Your task to perform on an android device: toggle improve location accuracy Image 0: 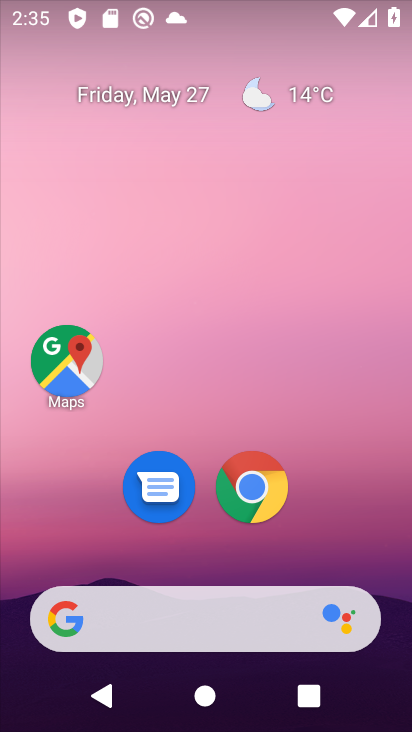
Step 0: drag from (277, 546) to (307, 82)
Your task to perform on an android device: toggle improve location accuracy Image 1: 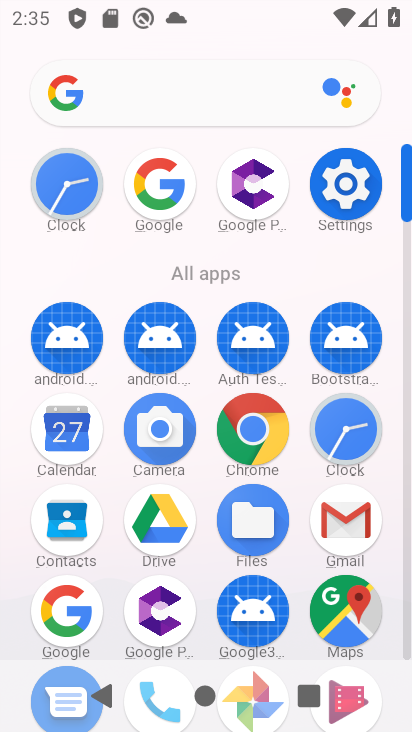
Step 1: click (350, 184)
Your task to perform on an android device: toggle improve location accuracy Image 2: 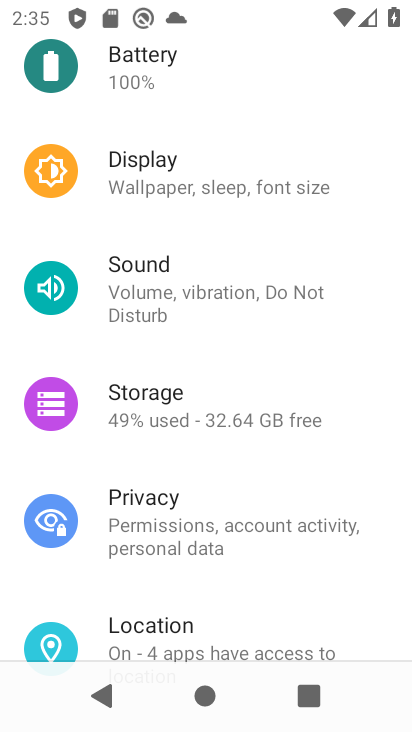
Step 2: drag from (256, 616) to (307, 267)
Your task to perform on an android device: toggle improve location accuracy Image 3: 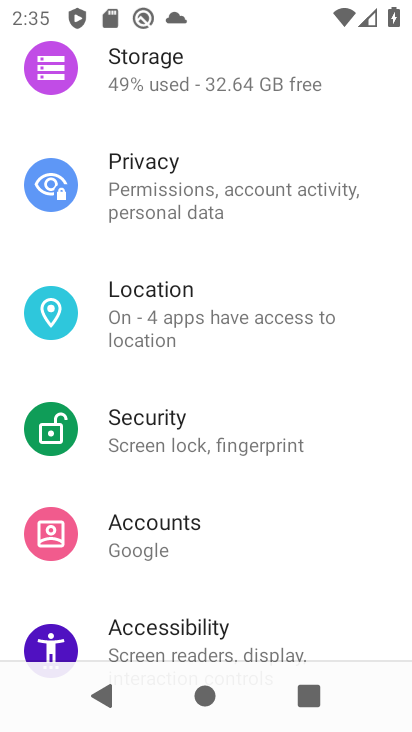
Step 3: click (179, 310)
Your task to perform on an android device: toggle improve location accuracy Image 4: 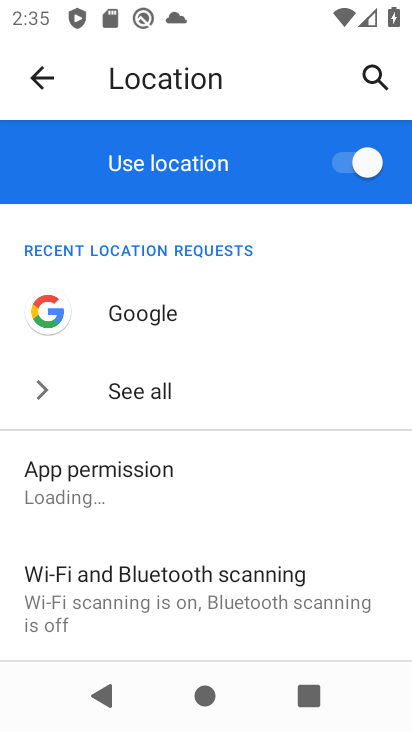
Step 4: click (357, 160)
Your task to perform on an android device: toggle improve location accuracy Image 5: 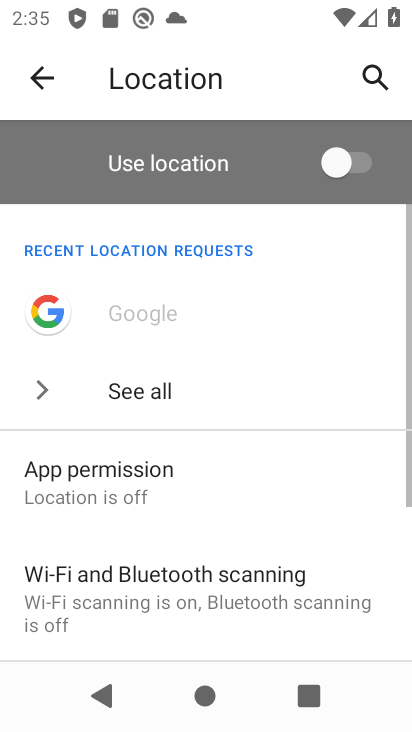
Step 5: task complete